Your task to perform on an android device: all mails in gmail Image 0: 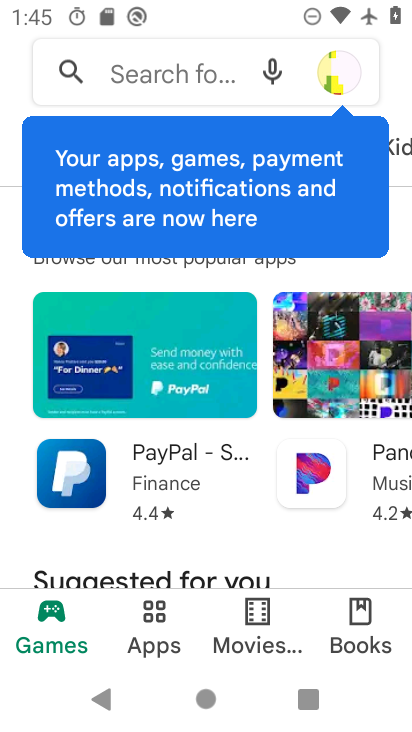
Step 0: press home button
Your task to perform on an android device: all mails in gmail Image 1: 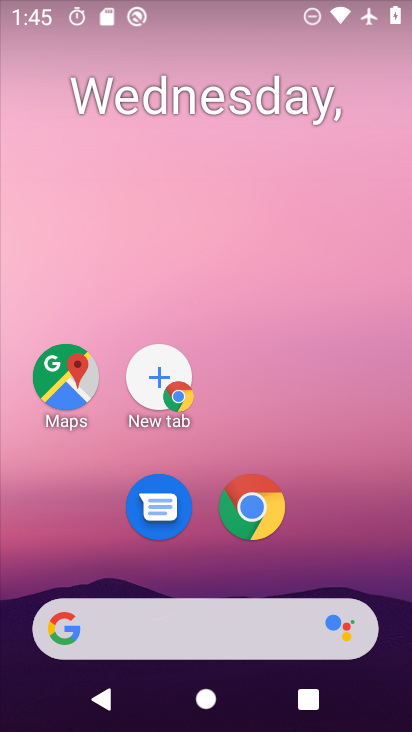
Step 1: drag from (360, 497) to (346, 50)
Your task to perform on an android device: all mails in gmail Image 2: 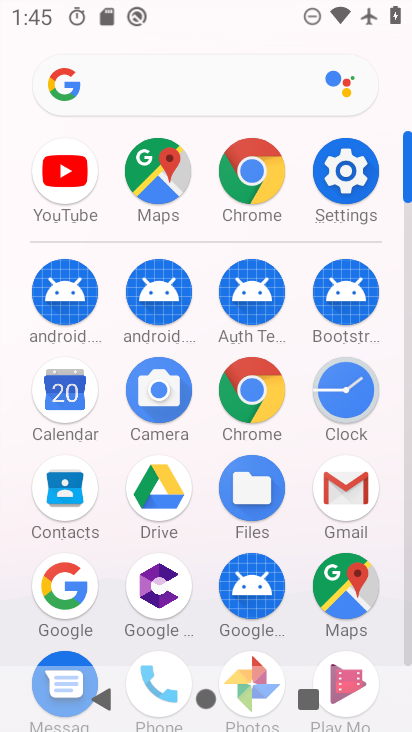
Step 2: click (360, 475)
Your task to perform on an android device: all mails in gmail Image 3: 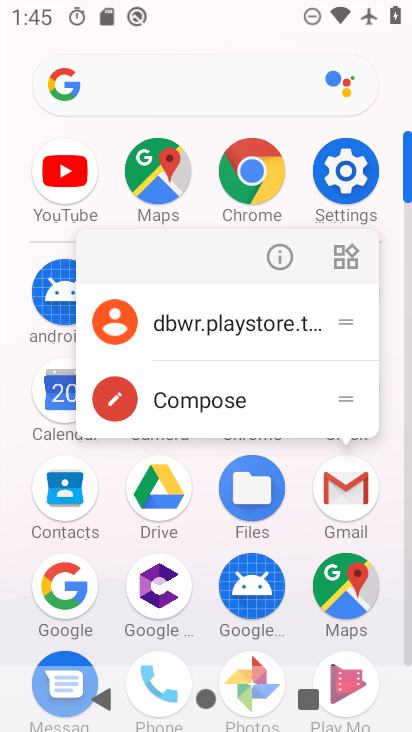
Step 3: click (362, 475)
Your task to perform on an android device: all mails in gmail Image 4: 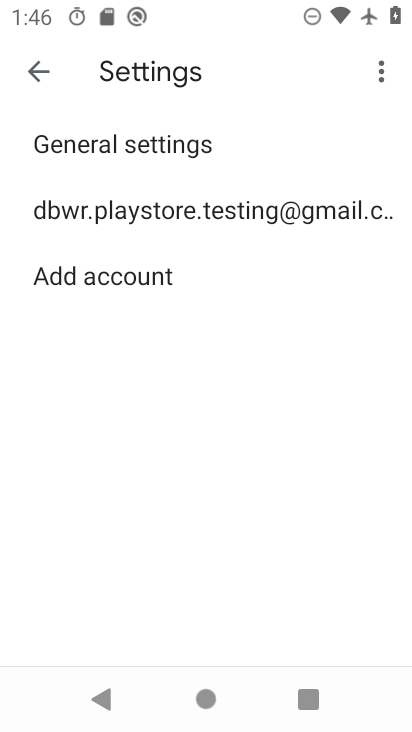
Step 4: click (41, 71)
Your task to perform on an android device: all mails in gmail Image 5: 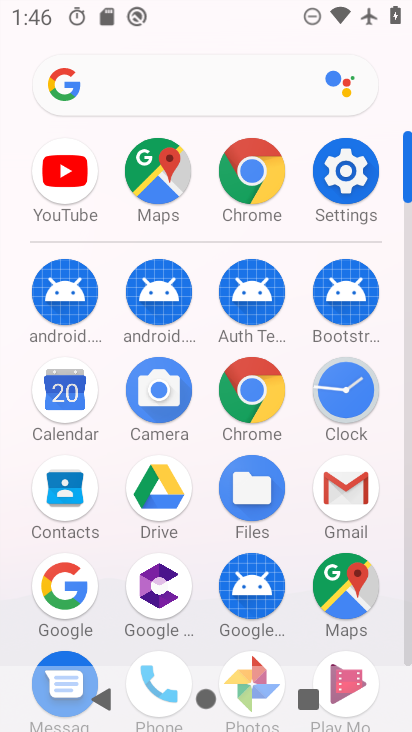
Step 5: click (368, 500)
Your task to perform on an android device: all mails in gmail Image 6: 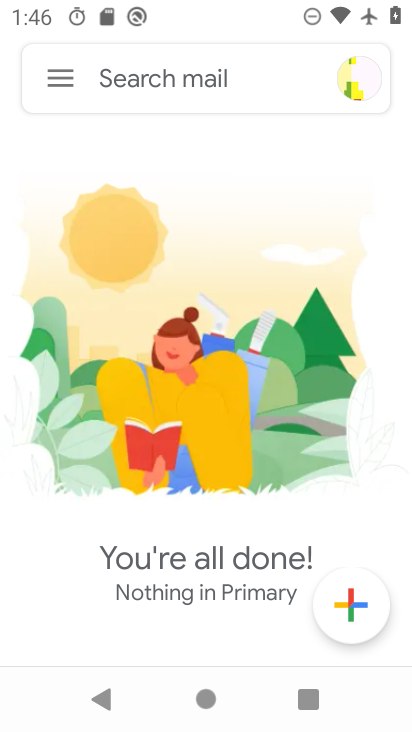
Step 6: click (61, 81)
Your task to perform on an android device: all mails in gmail Image 7: 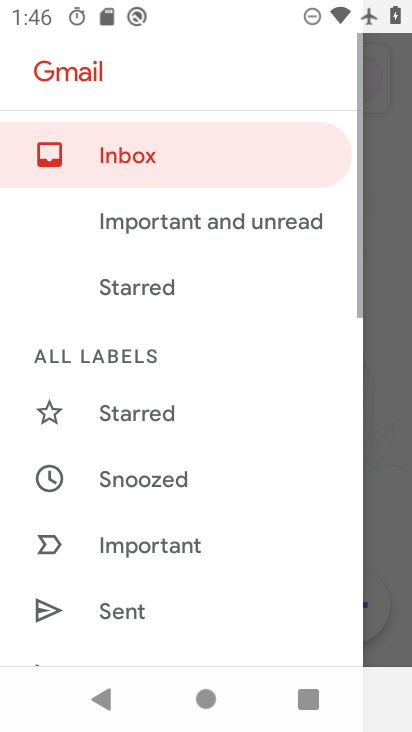
Step 7: drag from (229, 510) to (225, 277)
Your task to perform on an android device: all mails in gmail Image 8: 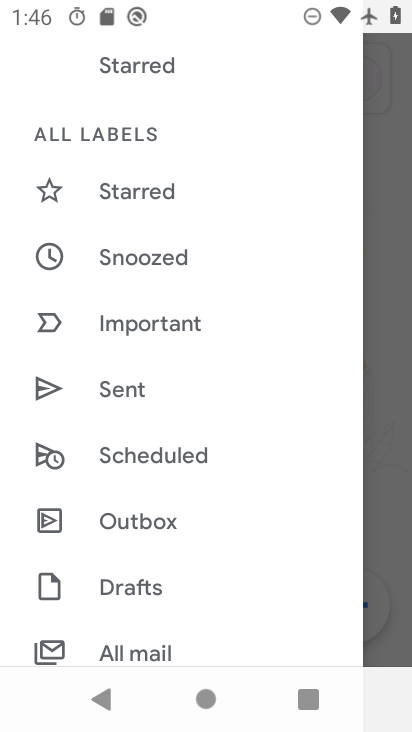
Step 8: drag from (176, 621) to (182, 309)
Your task to perform on an android device: all mails in gmail Image 9: 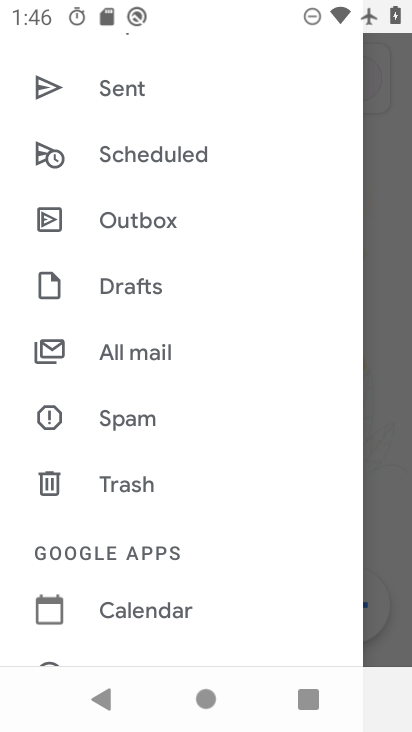
Step 9: click (151, 346)
Your task to perform on an android device: all mails in gmail Image 10: 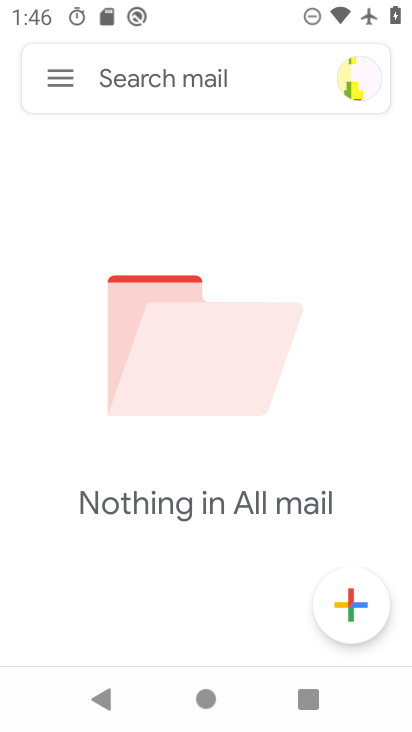
Step 10: task complete